Your task to perform on an android device: Open battery settings Image 0: 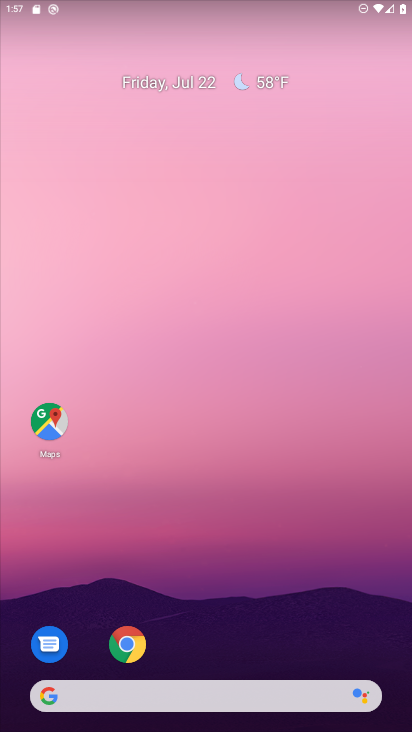
Step 0: drag from (224, 619) to (225, 82)
Your task to perform on an android device: Open battery settings Image 1: 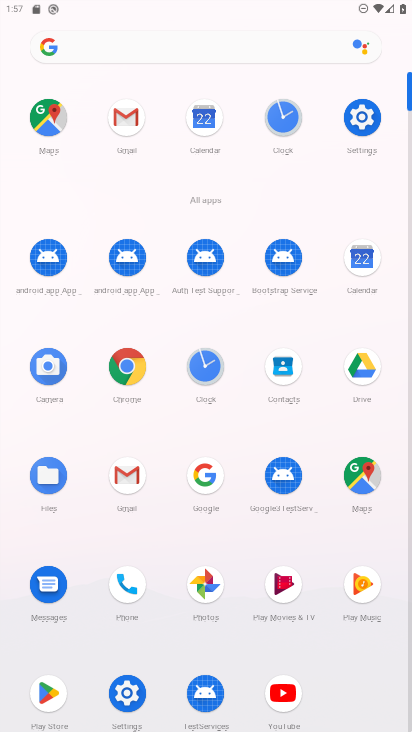
Step 1: click (373, 132)
Your task to perform on an android device: Open battery settings Image 2: 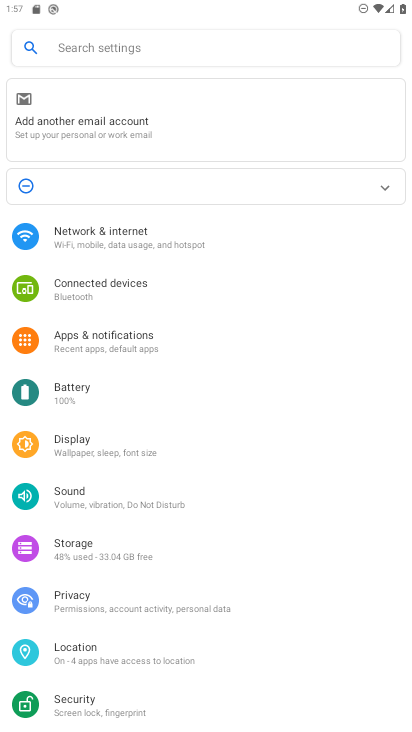
Step 2: click (127, 400)
Your task to perform on an android device: Open battery settings Image 3: 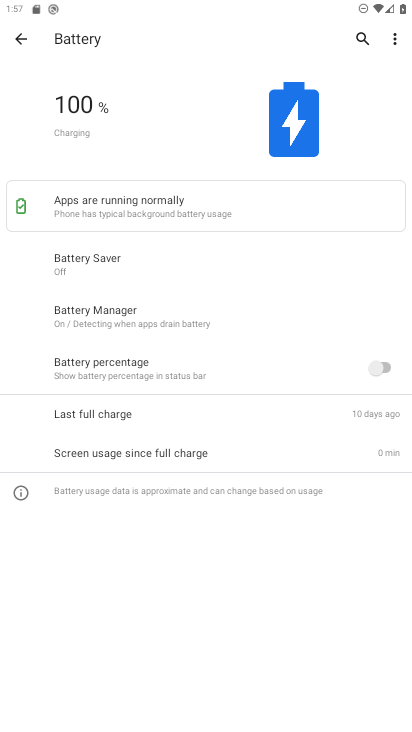
Step 3: task complete